Your task to perform on an android device: change notification settings in the gmail app Image 0: 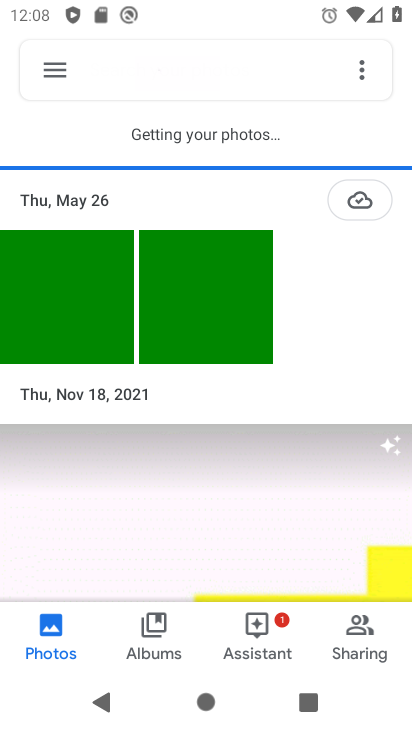
Step 0: press home button
Your task to perform on an android device: change notification settings in the gmail app Image 1: 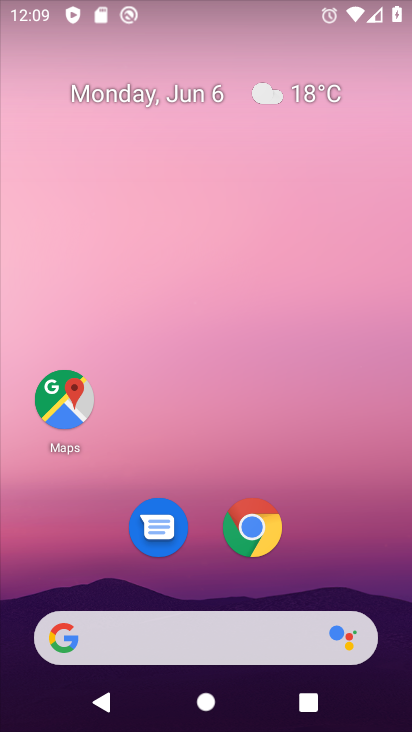
Step 1: drag from (209, 596) to (137, 0)
Your task to perform on an android device: change notification settings in the gmail app Image 2: 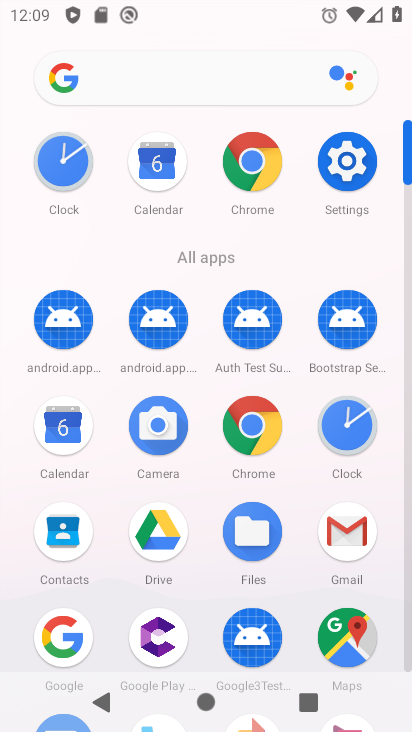
Step 2: click (339, 514)
Your task to perform on an android device: change notification settings in the gmail app Image 3: 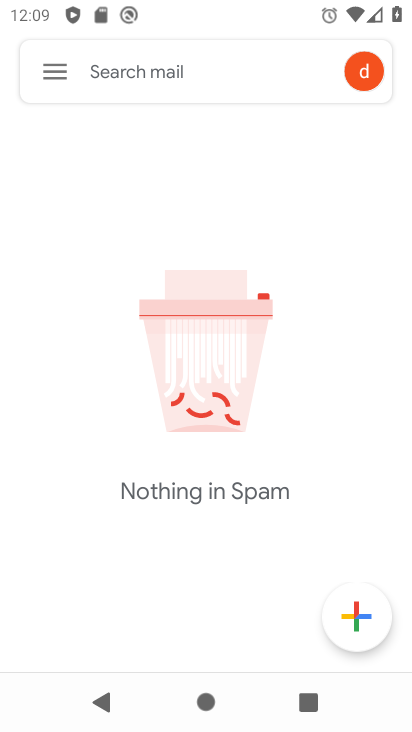
Step 3: click (43, 74)
Your task to perform on an android device: change notification settings in the gmail app Image 4: 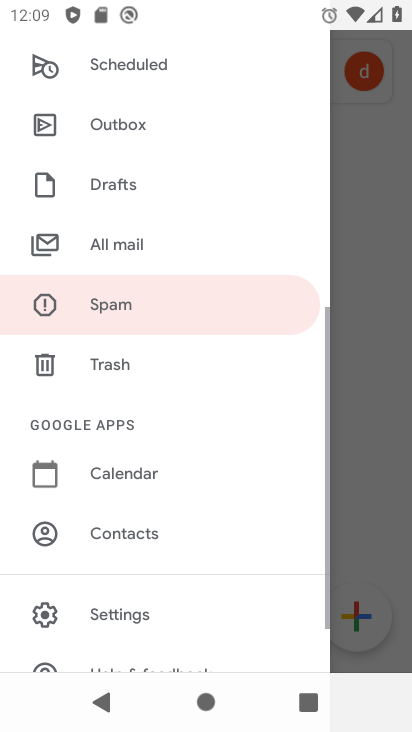
Step 4: click (151, 605)
Your task to perform on an android device: change notification settings in the gmail app Image 5: 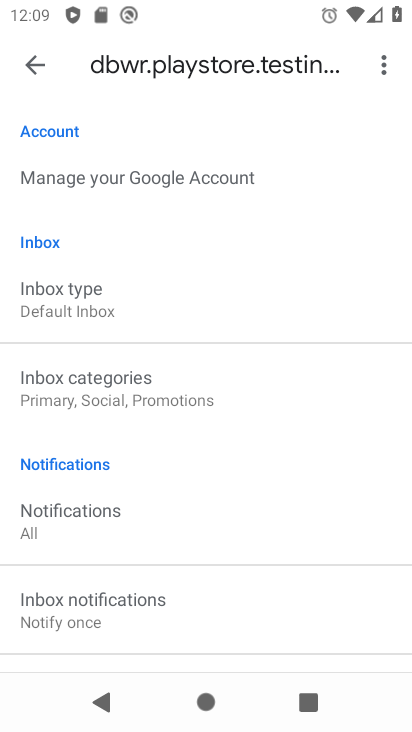
Step 5: click (19, 80)
Your task to perform on an android device: change notification settings in the gmail app Image 6: 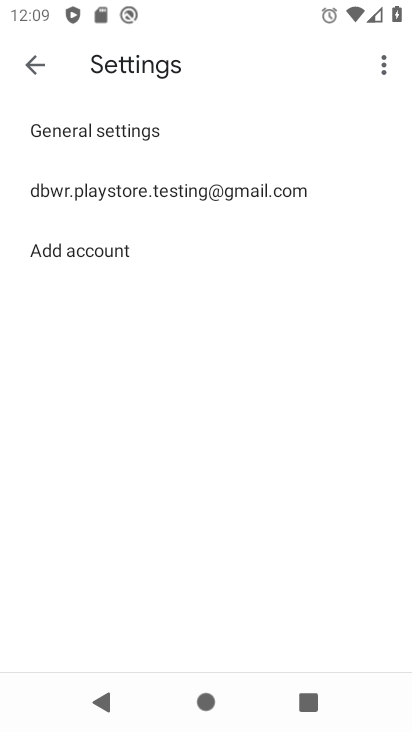
Step 6: click (61, 139)
Your task to perform on an android device: change notification settings in the gmail app Image 7: 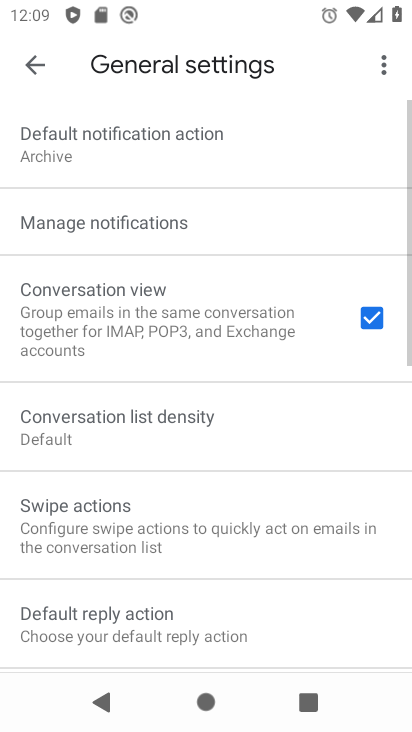
Step 7: click (94, 219)
Your task to perform on an android device: change notification settings in the gmail app Image 8: 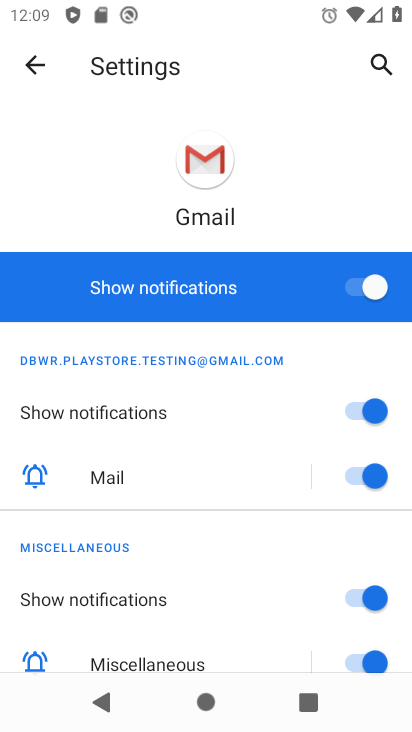
Step 8: click (360, 281)
Your task to perform on an android device: change notification settings in the gmail app Image 9: 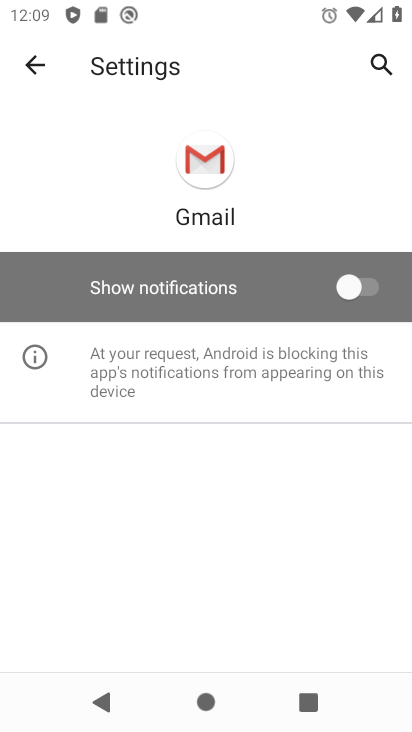
Step 9: task complete